Your task to perform on an android device: Search for macbook pro 13 inch on costco.com, select the first entry, and add it to the cart. Image 0: 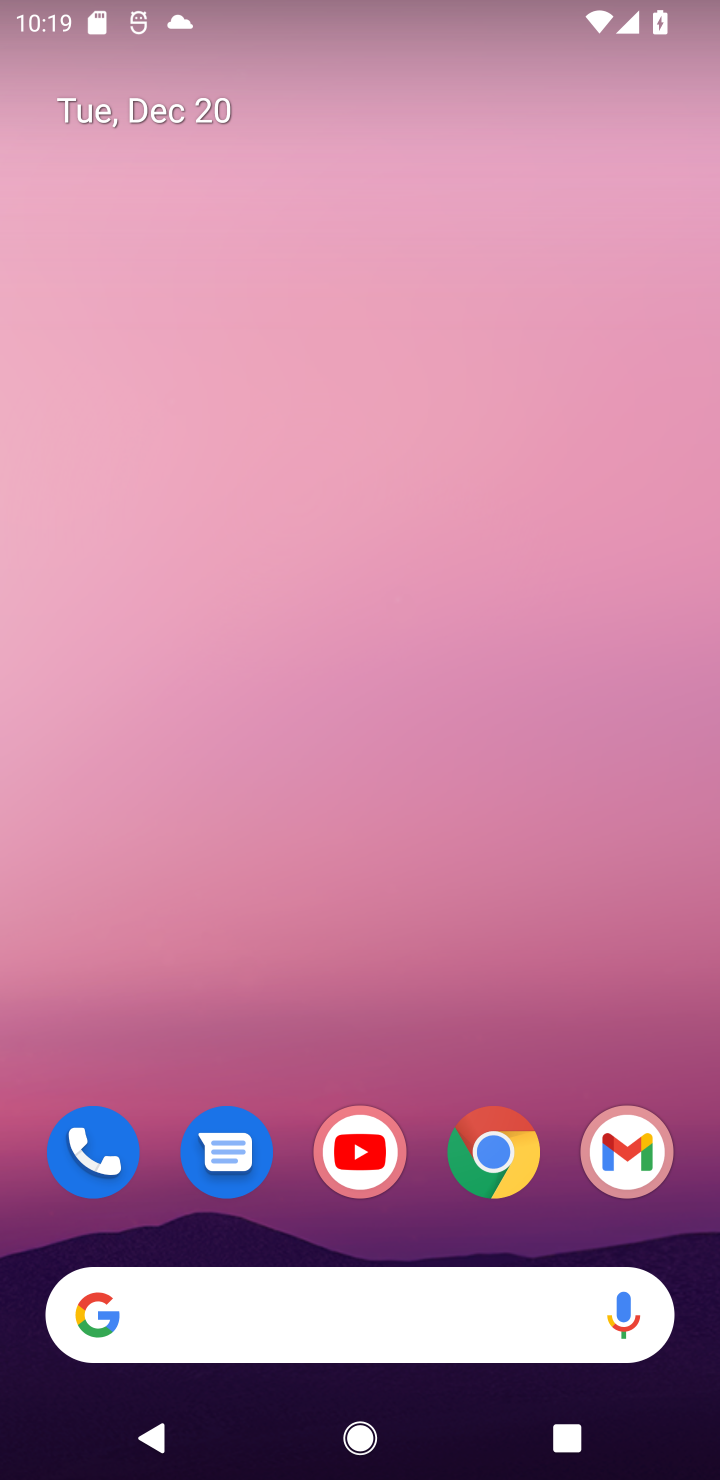
Step 0: click (514, 1149)
Your task to perform on an android device: Search for macbook pro 13 inch on costco.com, select the first entry, and add it to the cart. Image 1: 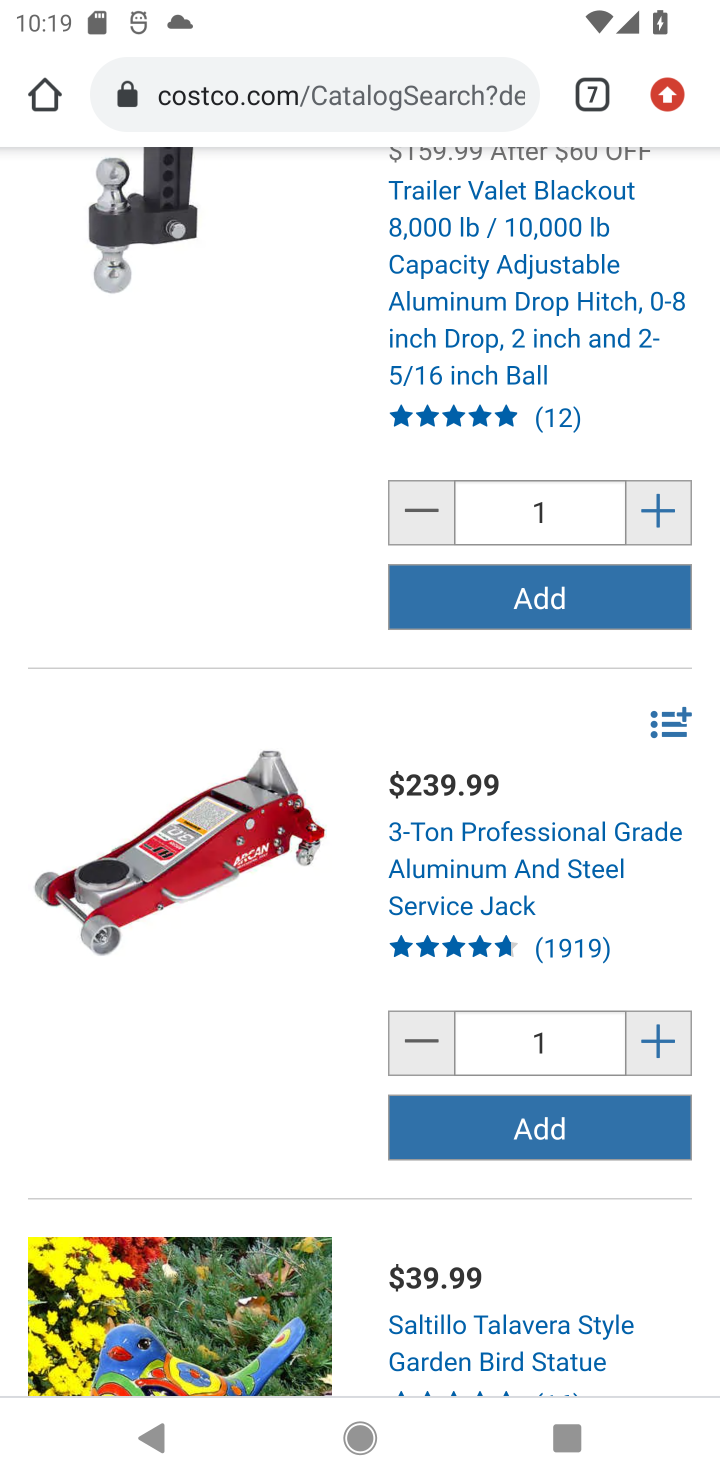
Step 1: drag from (250, 226) to (131, 1067)
Your task to perform on an android device: Search for macbook pro 13 inch on costco.com, select the first entry, and add it to the cart. Image 2: 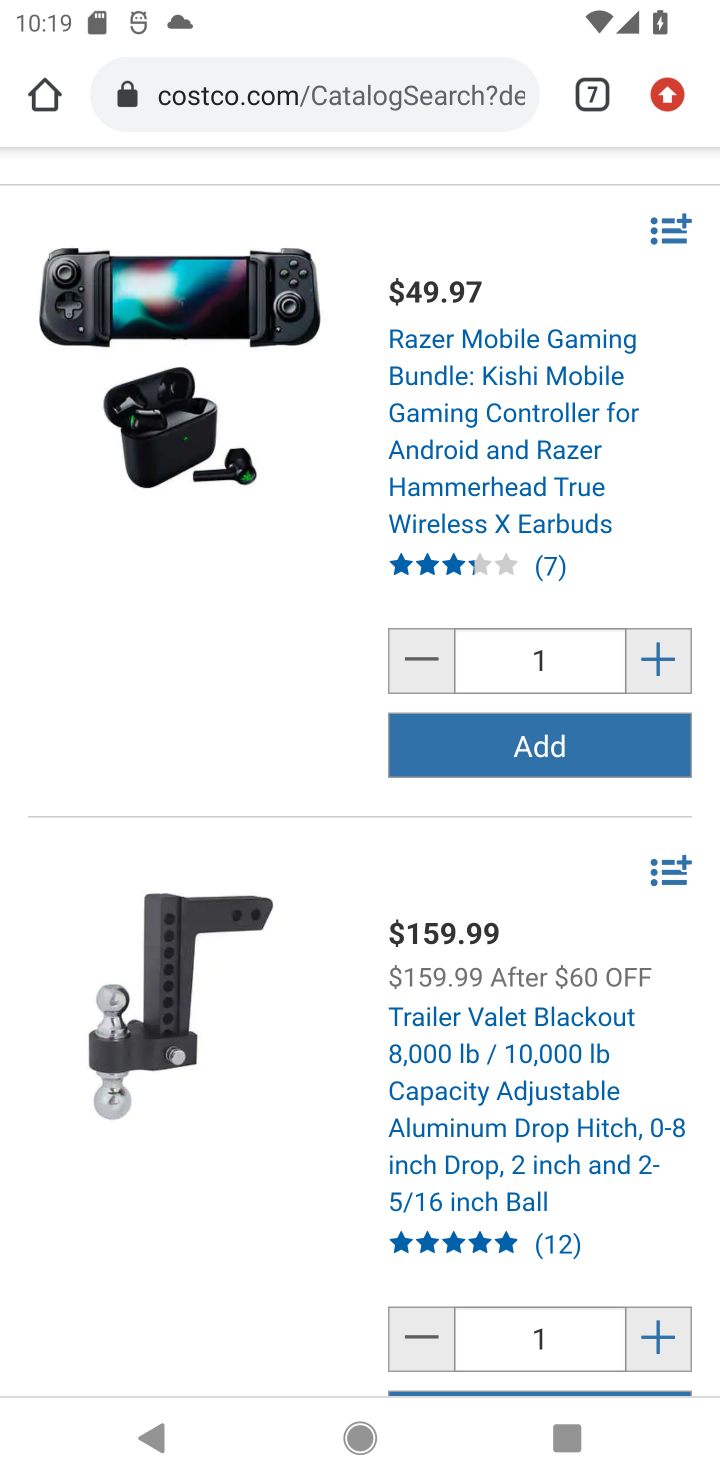
Step 2: drag from (270, 195) to (174, 1261)
Your task to perform on an android device: Search for macbook pro 13 inch on costco.com, select the first entry, and add it to the cart. Image 3: 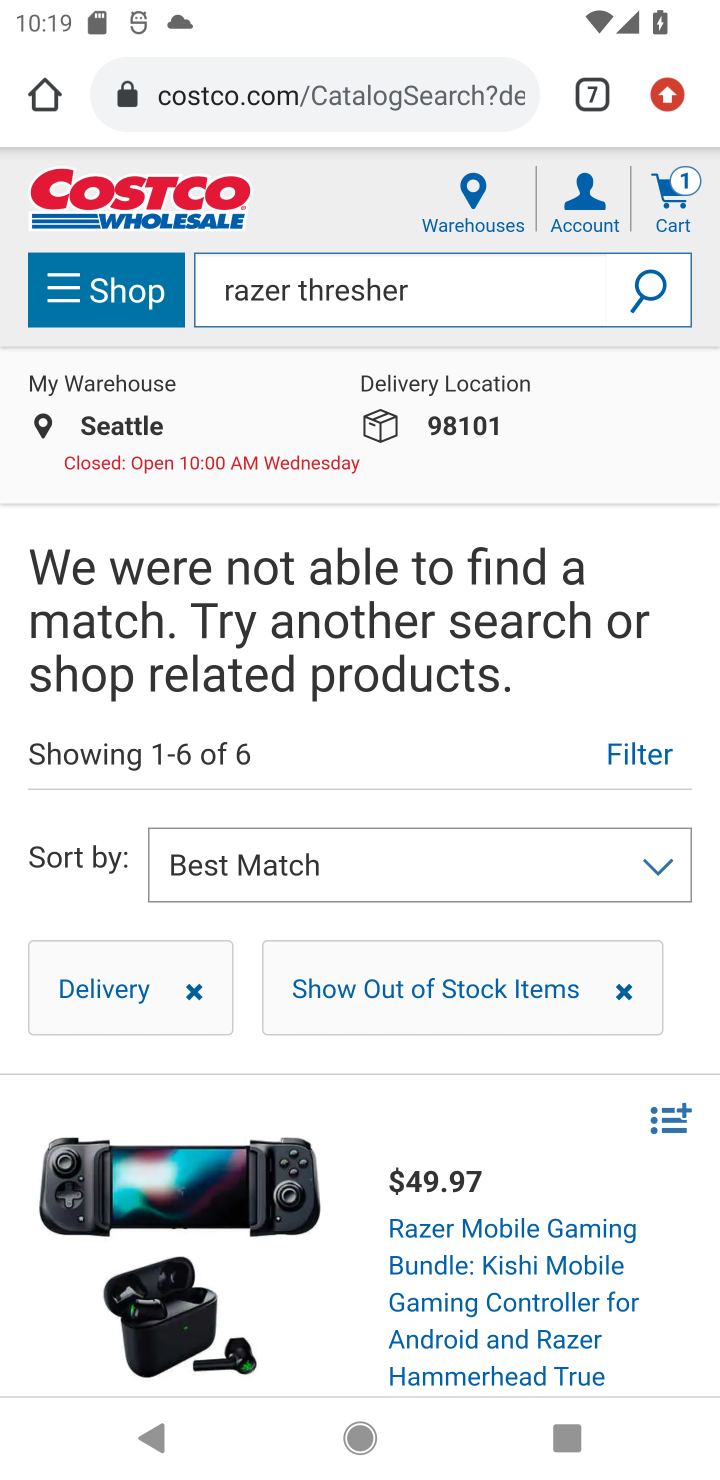
Step 3: click (348, 292)
Your task to perform on an android device: Search for macbook pro 13 inch on costco.com, select the first entry, and add it to the cart. Image 4: 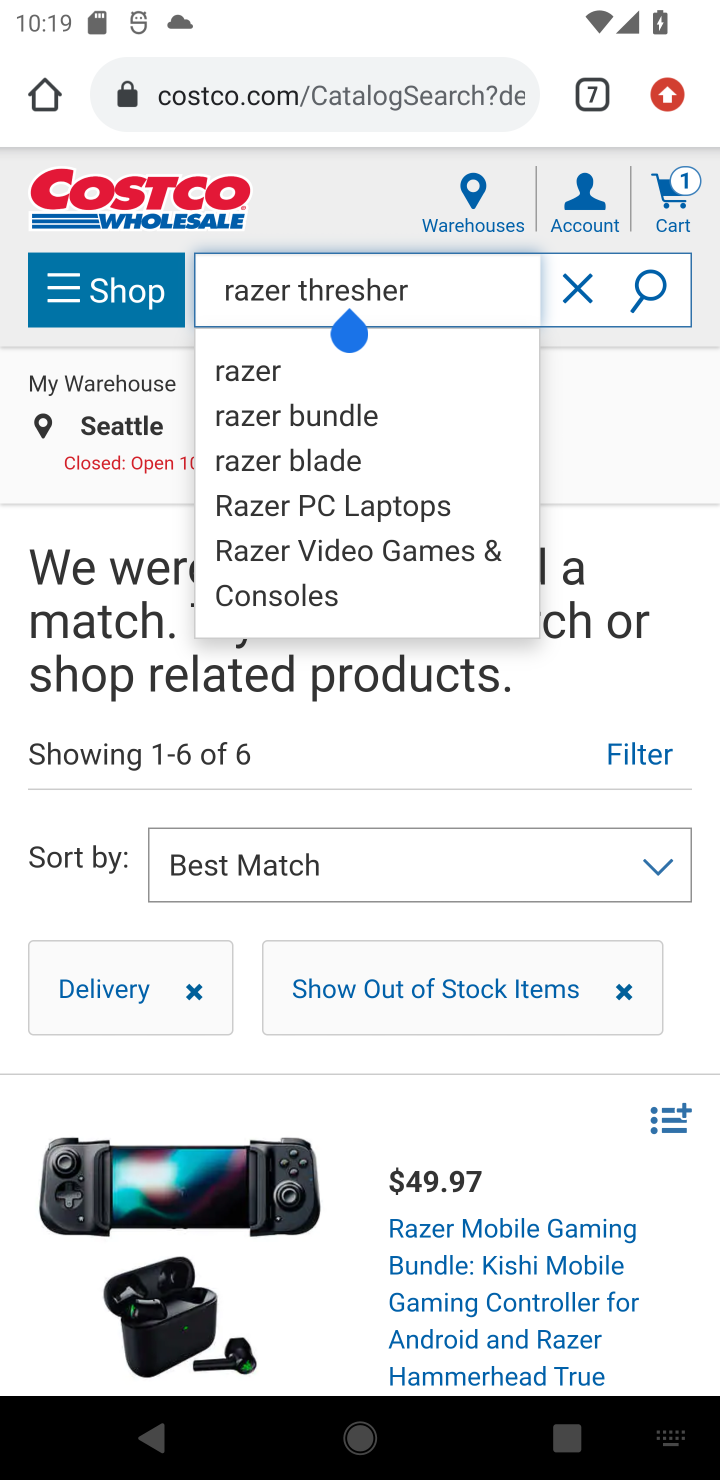
Step 4: click (577, 294)
Your task to perform on an android device: Search for macbook pro 13 inch on costco.com, select the first entry, and add it to the cart. Image 5: 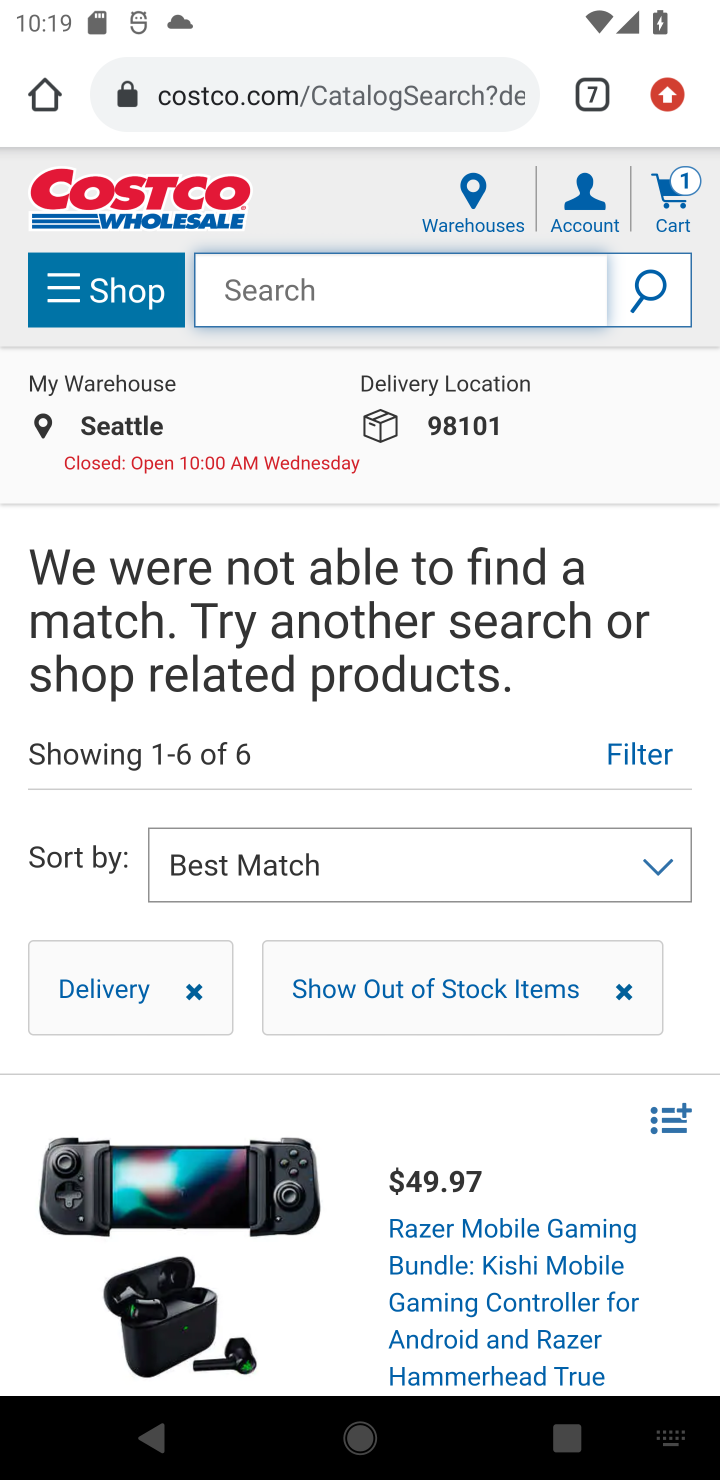
Step 5: type "macbook pro 13 inch"
Your task to perform on an android device: Search for macbook pro 13 inch on costco.com, select the first entry, and add it to the cart. Image 6: 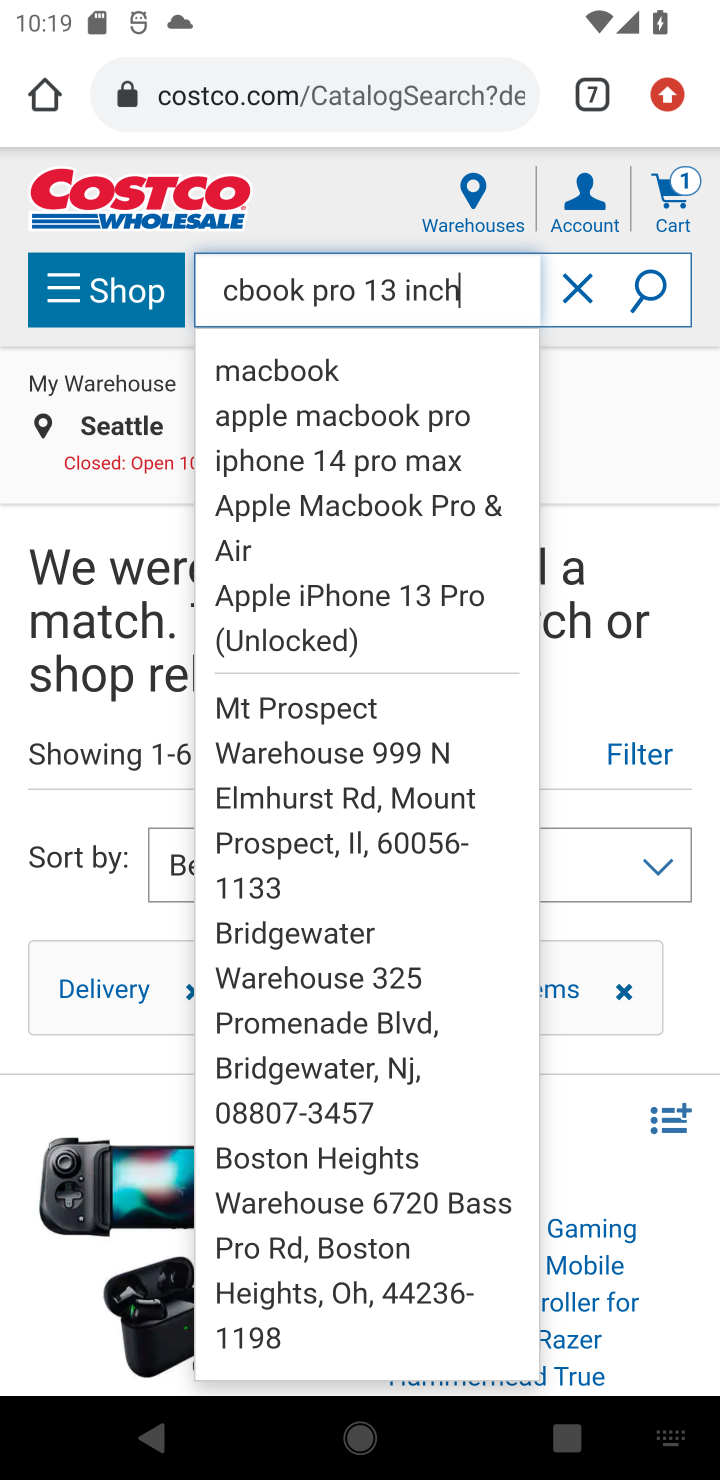
Step 6: click (649, 285)
Your task to perform on an android device: Search for macbook pro 13 inch on costco.com, select the first entry, and add it to the cart. Image 7: 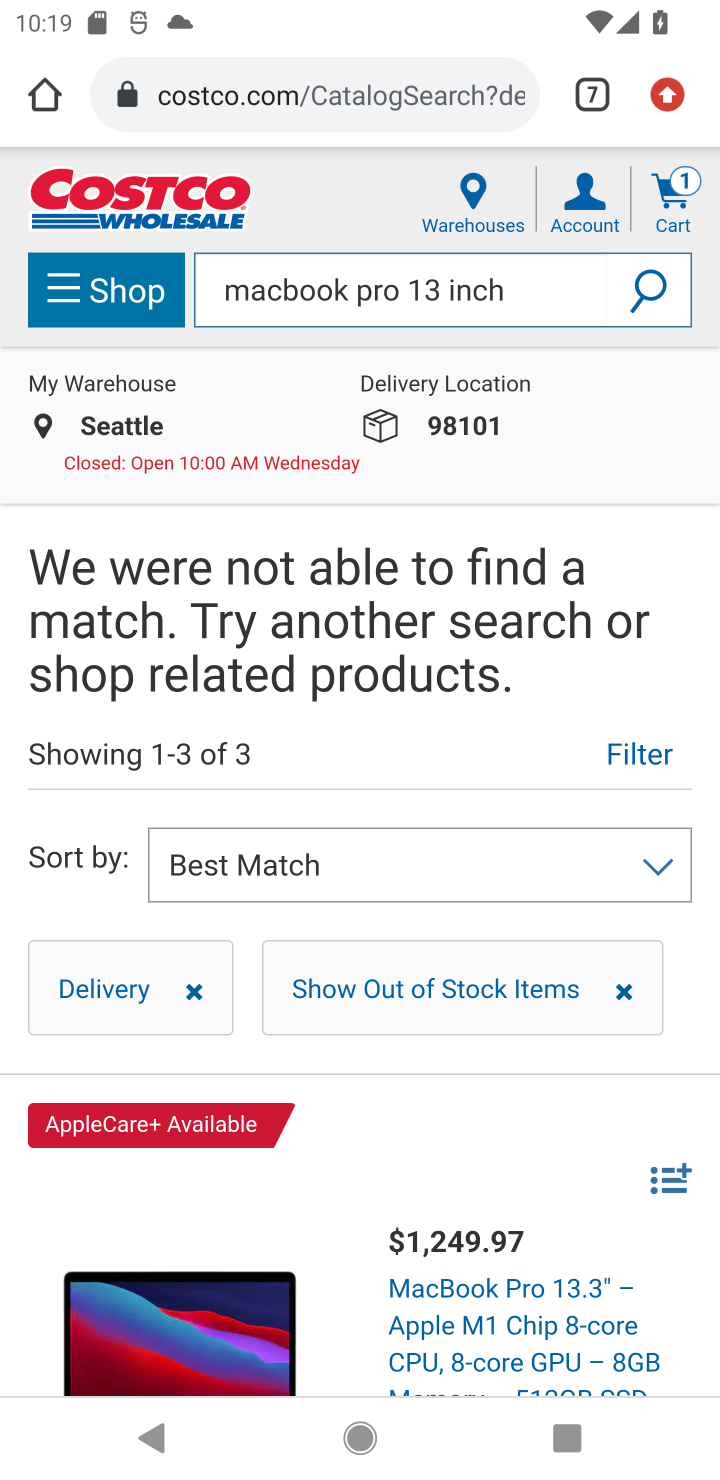
Step 7: drag from (344, 1271) to (425, 524)
Your task to perform on an android device: Search for macbook pro 13 inch on costco.com, select the first entry, and add it to the cart. Image 8: 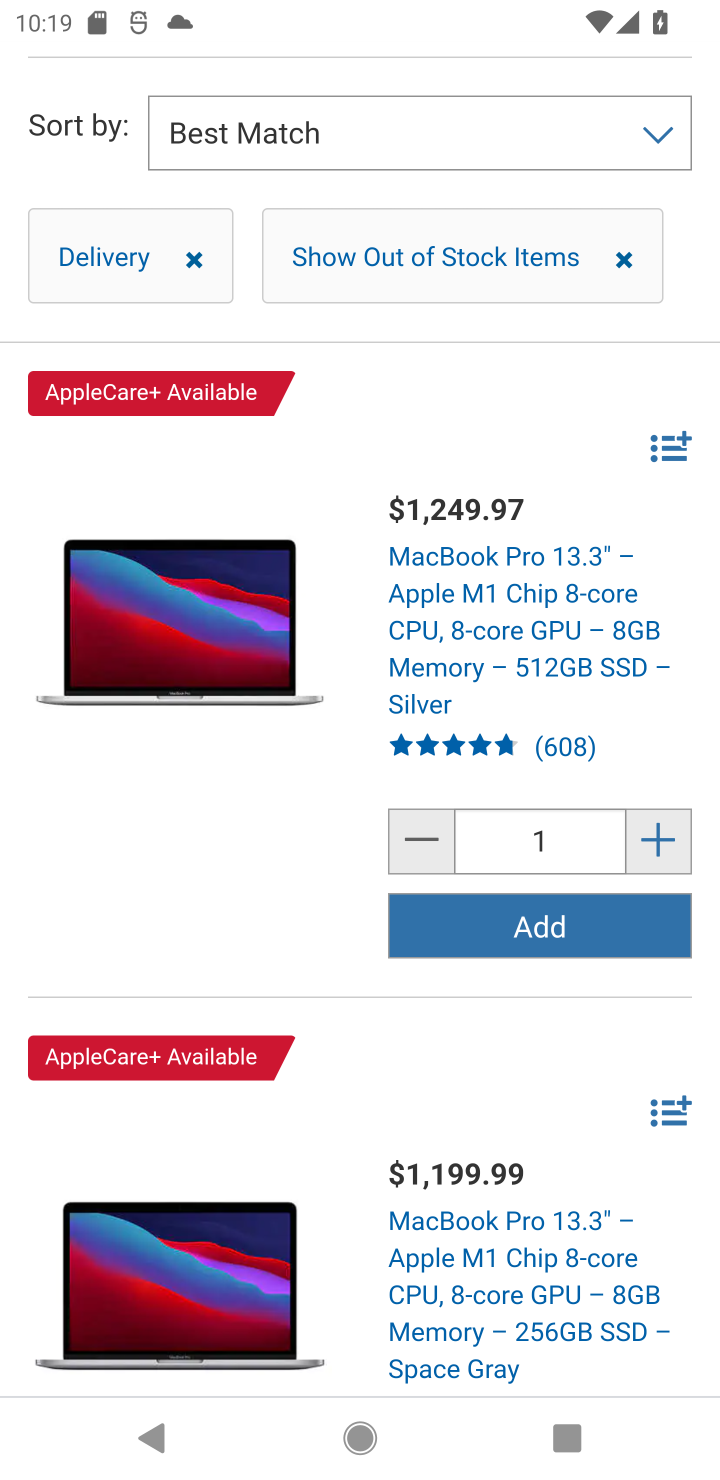
Step 8: click (526, 919)
Your task to perform on an android device: Search for macbook pro 13 inch on costco.com, select the first entry, and add it to the cart. Image 9: 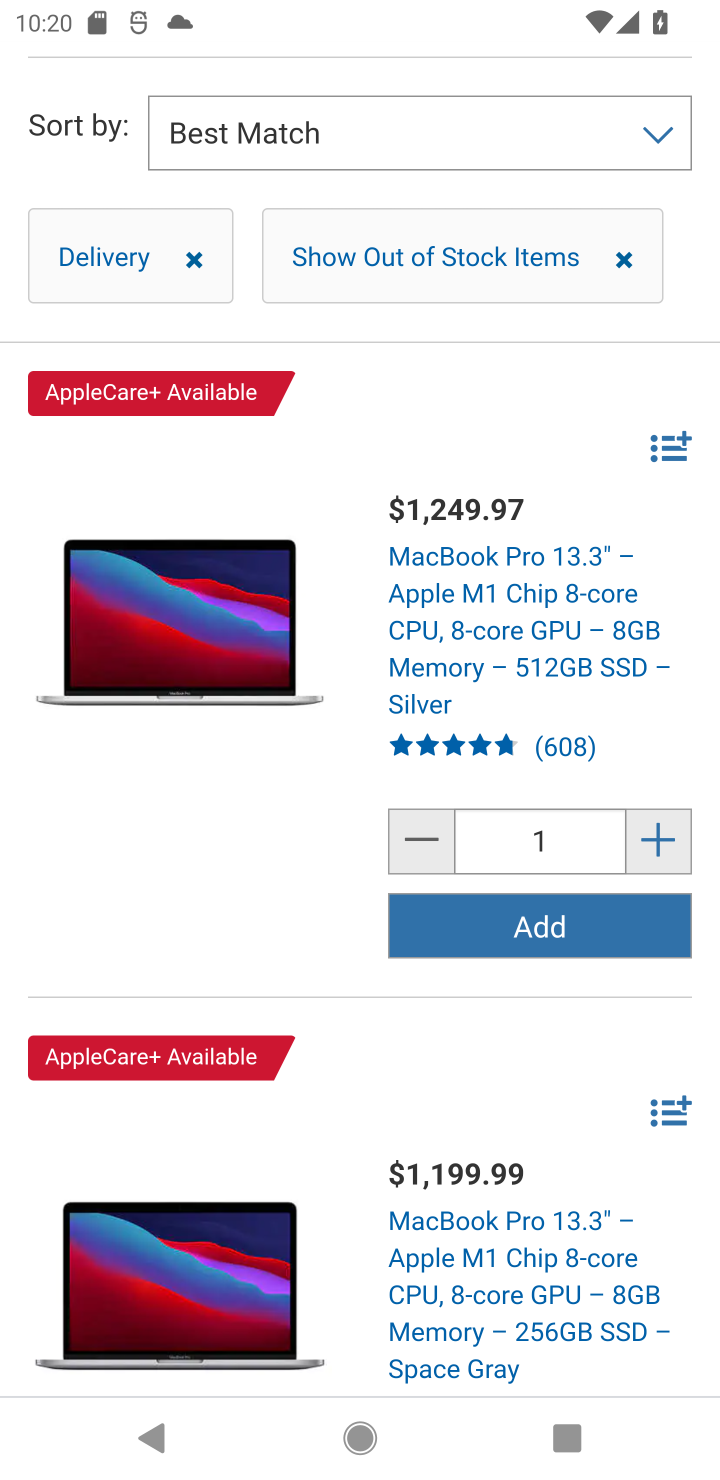
Step 9: task complete